Your task to perform on an android device: Search for vegetarian restaurants on Maps Image 0: 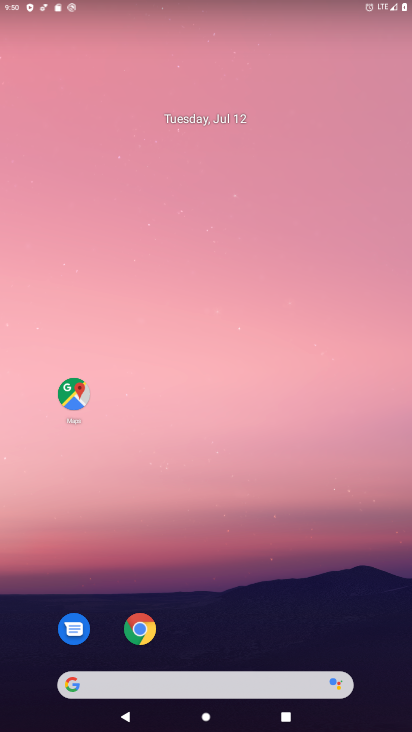
Step 0: click (71, 390)
Your task to perform on an android device: Search for vegetarian restaurants on Maps Image 1: 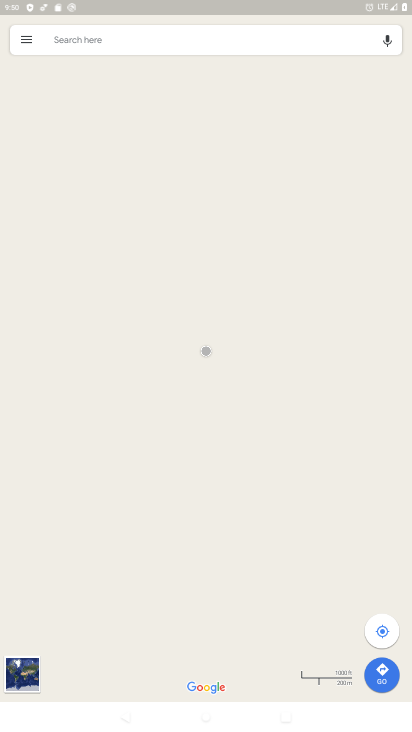
Step 1: click (73, 33)
Your task to perform on an android device: Search for vegetarian restaurants on Maps Image 2: 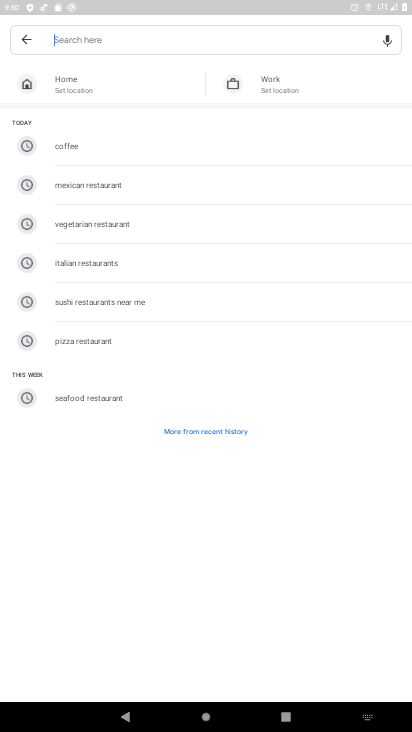
Step 2: type "vegetarian restaurants"
Your task to perform on an android device: Search for vegetarian restaurants on Maps Image 3: 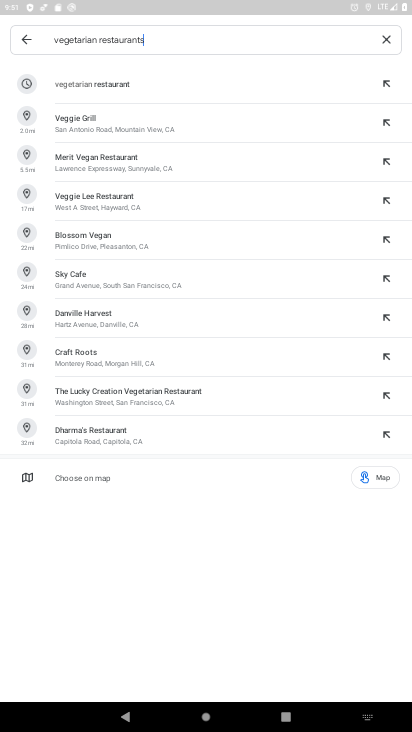
Step 3: click (97, 84)
Your task to perform on an android device: Search for vegetarian restaurants on Maps Image 4: 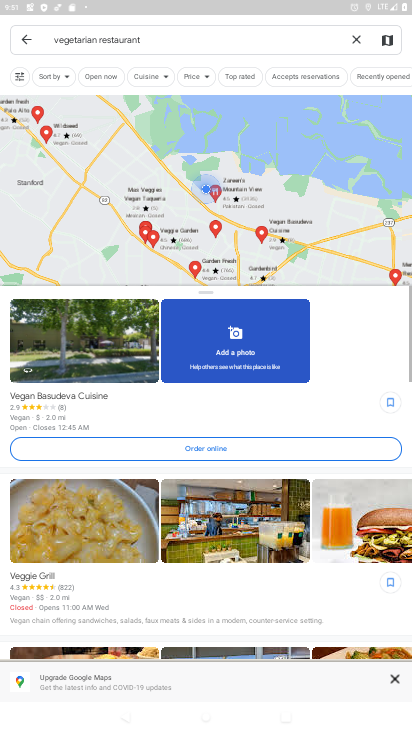
Step 4: task complete